Your task to perform on an android device: Go to Wikipedia Image 0: 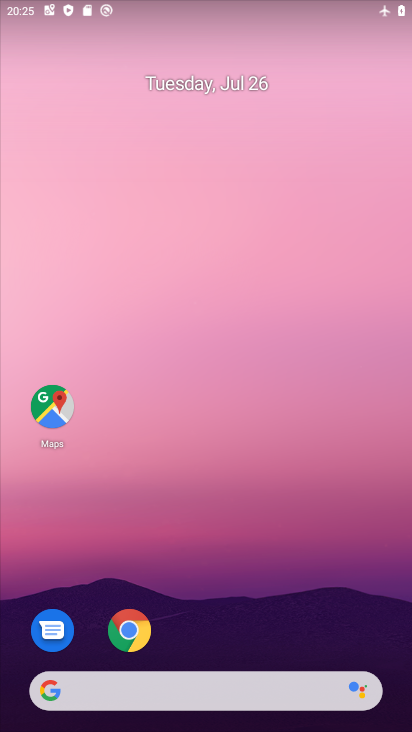
Step 0: drag from (276, 645) to (249, 7)
Your task to perform on an android device: Go to Wikipedia Image 1: 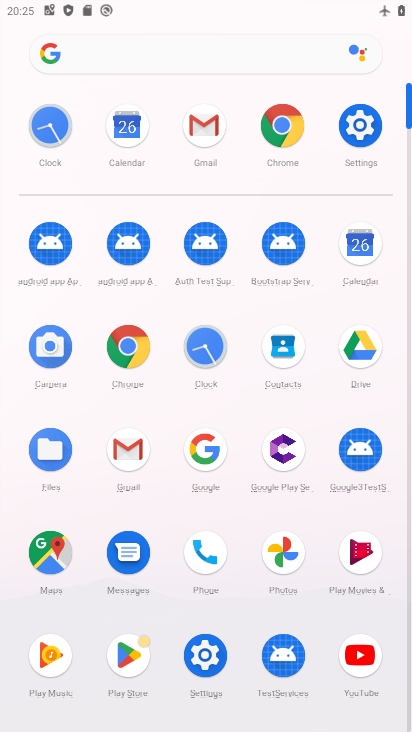
Step 1: click (231, 63)
Your task to perform on an android device: Go to Wikipedia Image 2: 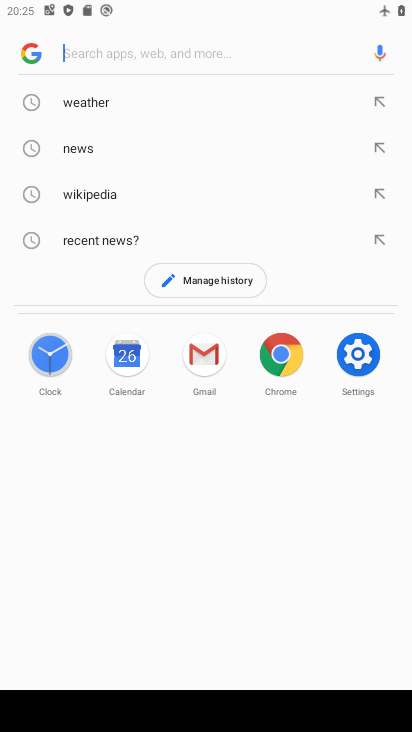
Step 2: click (102, 188)
Your task to perform on an android device: Go to Wikipedia Image 3: 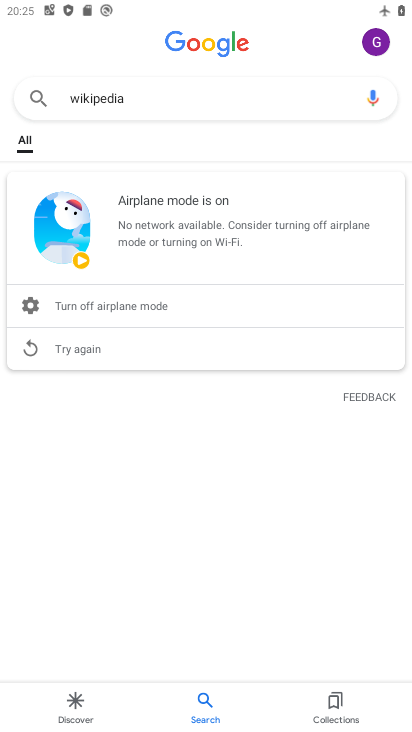
Step 3: task complete